Your task to perform on an android device: Set the phone to "Do not disturb". Image 0: 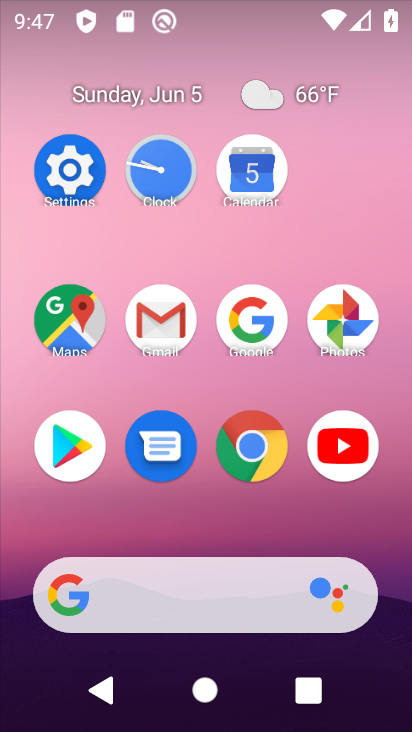
Step 0: click (56, 172)
Your task to perform on an android device: Set the phone to "Do not disturb". Image 1: 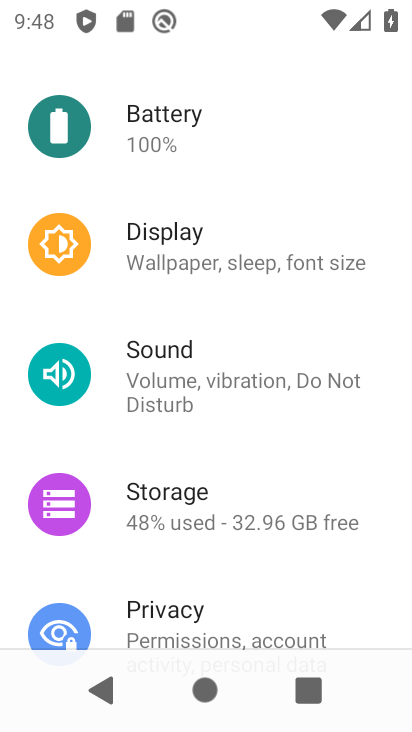
Step 1: click (195, 379)
Your task to perform on an android device: Set the phone to "Do not disturb". Image 2: 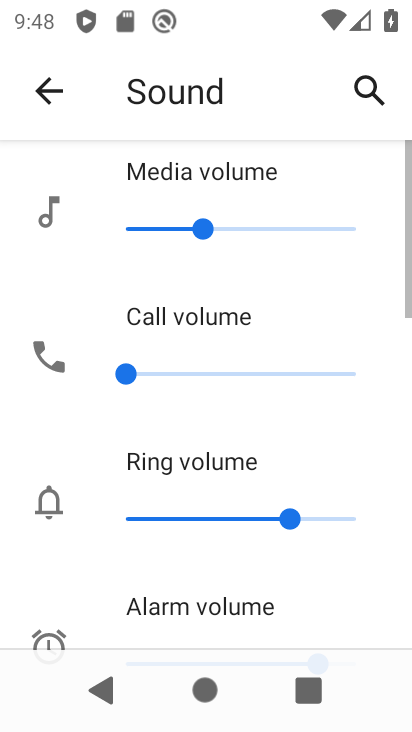
Step 2: drag from (251, 553) to (270, 194)
Your task to perform on an android device: Set the phone to "Do not disturb". Image 3: 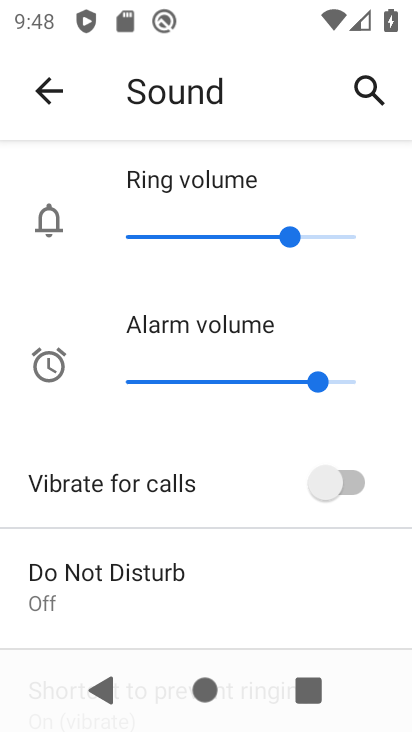
Step 3: click (238, 558)
Your task to perform on an android device: Set the phone to "Do not disturb". Image 4: 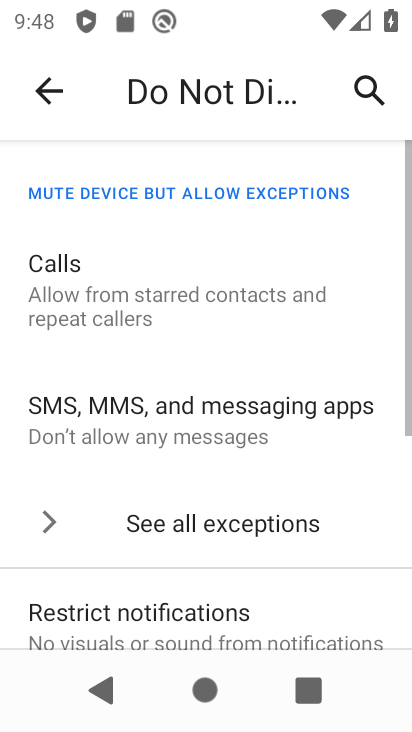
Step 4: drag from (221, 592) to (238, 143)
Your task to perform on an android device: Set the phone to "Do not disturb". Image 5: 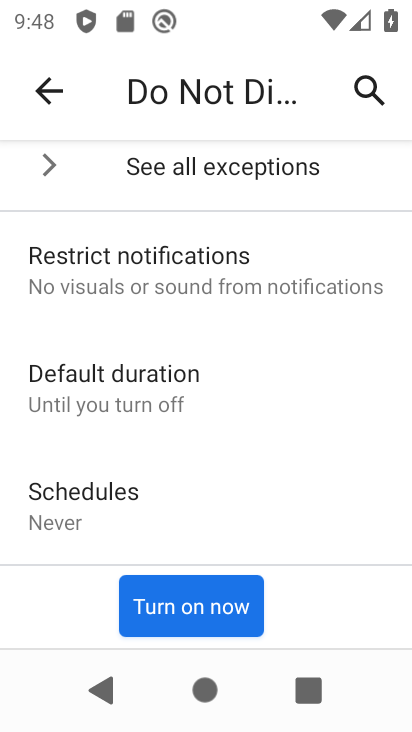
Step 5: click (183, 590)
Your task to perform on an android device: Set the phone to "Do not disturb". Image 6: 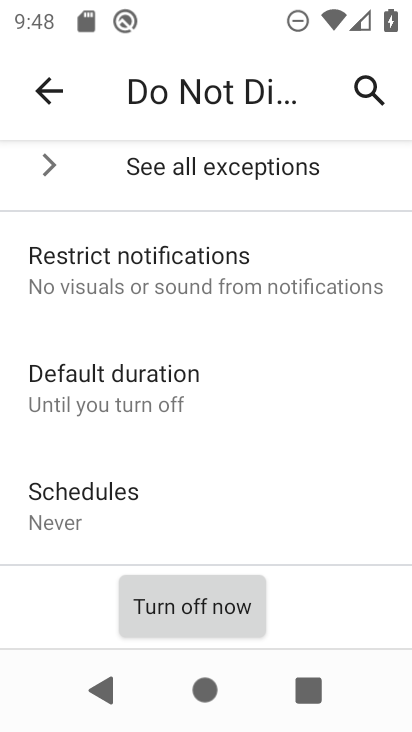
Step 6: task complete